Your task to perform on an android device: Set the phone to "Do not disturb". Image 0: 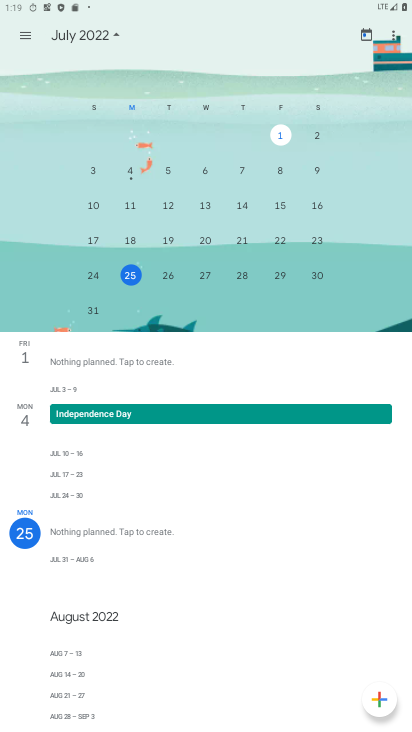
Step 0: press home button
Your task to perform on an android device: Set the phone to "Do not disturb". Image 1: 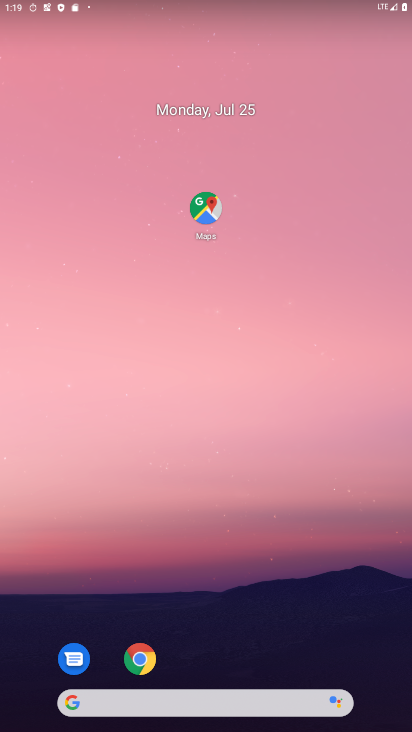
Step 1: click (125, 290)
Your task to perform on an android device: Set the phone to "Do not disturb". Image 2: 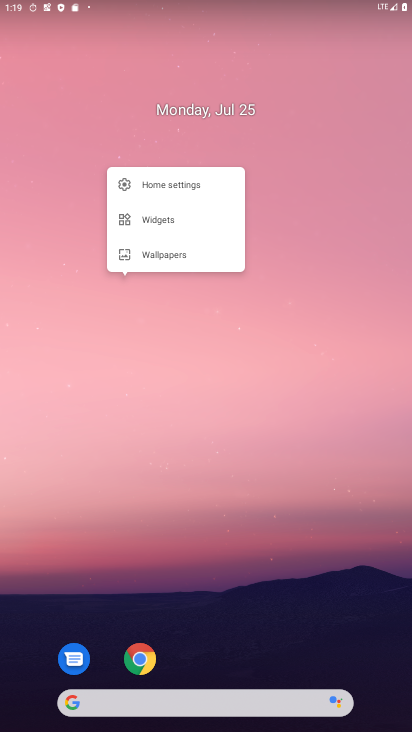
Step 2: drag from (45, 670) to (188, 244)
Your task to perform on an android device: Set the phone to "Do not disturb". Image 3: 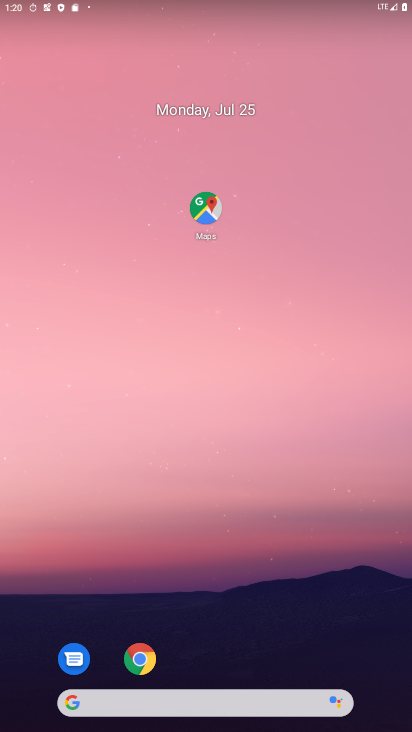
Step 3: drag from (28, 693) to (125, 723)
Your task to perform on an android device: Set the phone to "Do not disturb". Image 4: 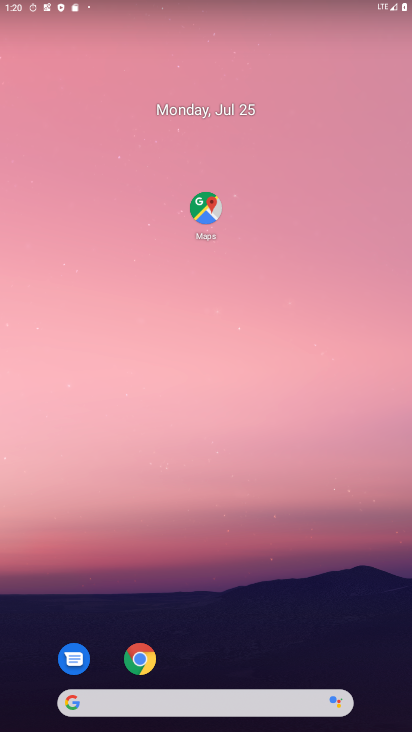
Step 4: click (211, 616)
Your task to perform on an android device: Set the phone to "Do not disturb". Image 5: 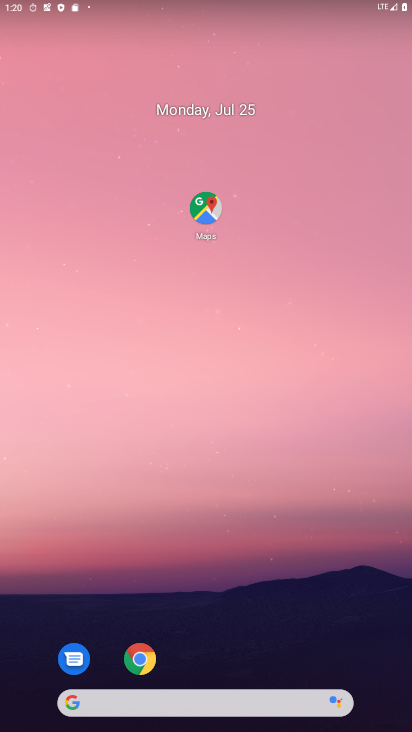
Step 5: drag from (34, 685) to (244, 1)
Your task to perform on an android device: Set the phone to "Do not disturb". Image 6: 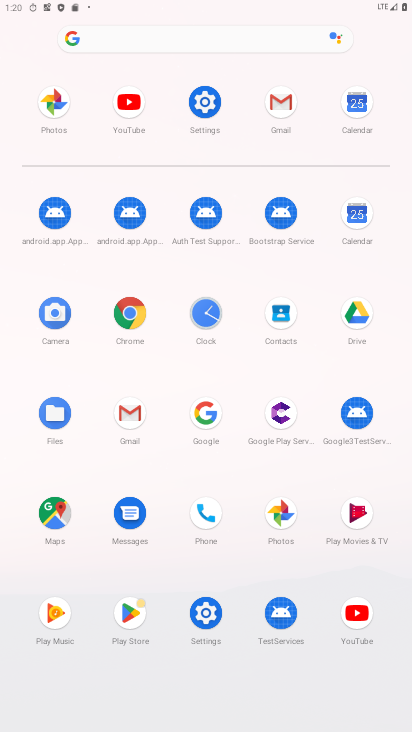
Step 6: click (237, 613)
Your task to perform on an android device: Set the phone to "Do not disturb". Image 7: 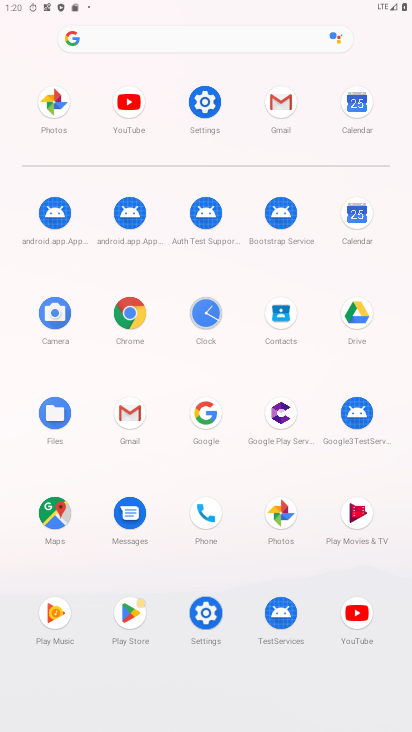
Step 7: click (210, 621)
Your task to perform on an android device: Set the phone to "Do not disturb". Image 8: 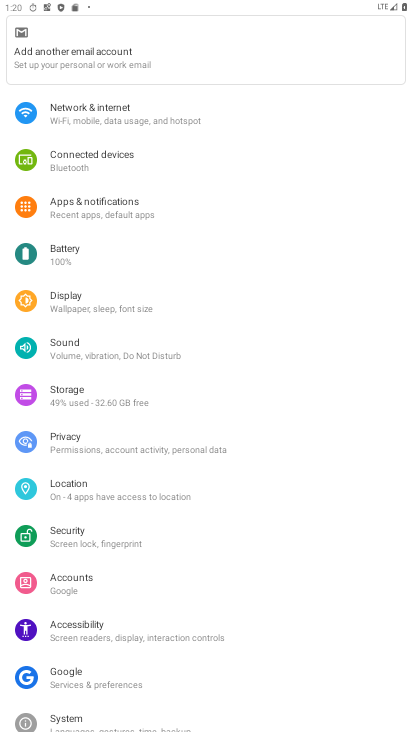
Step 8: click (92, 349)
Your task to perform on an android device: Set the phone to "Do not disturb". Image 9: 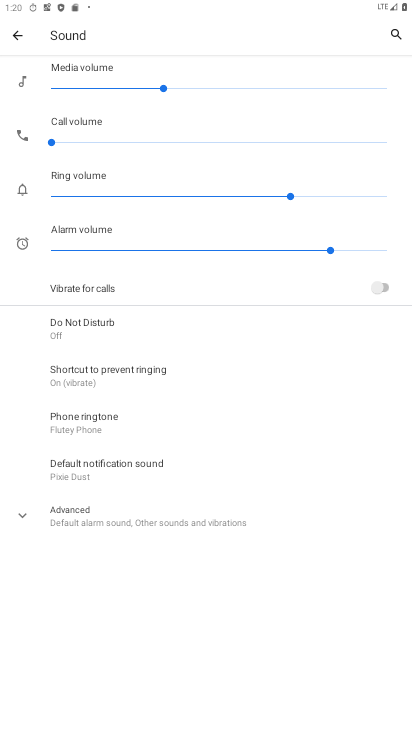
Step 9: click (94, 324)
Your task to perform on an android device: Set the phone to "Do not disturb". Image 10: 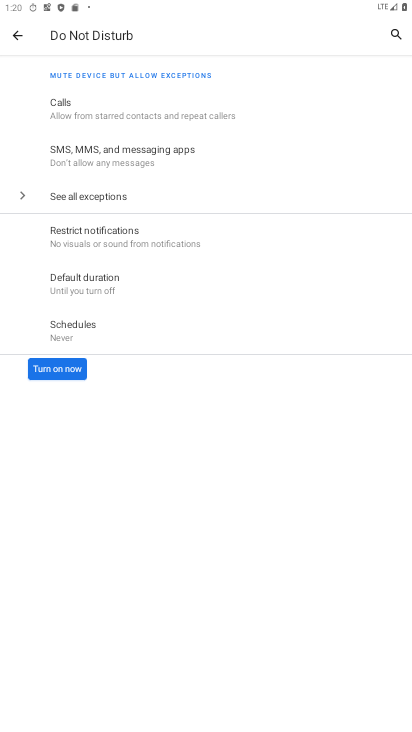
Step 10: click (56, 364)
Your task to perform on an android device: Set the phone to "Do not disturb". Image 11: 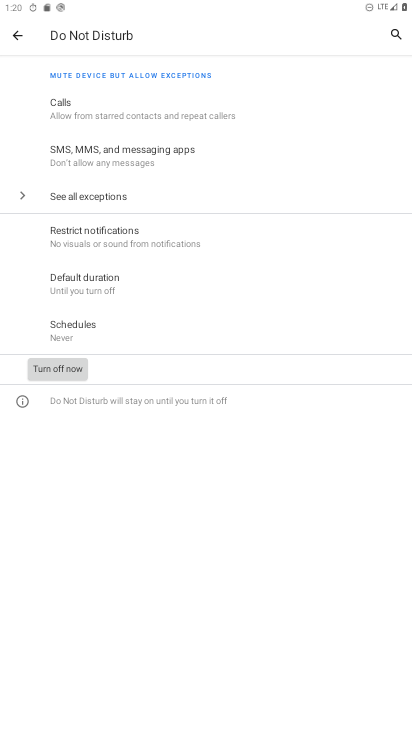
Step 11: task complete